Your task to perform on an android device: Open Youtube and go to the subscriptions tab Image 0: 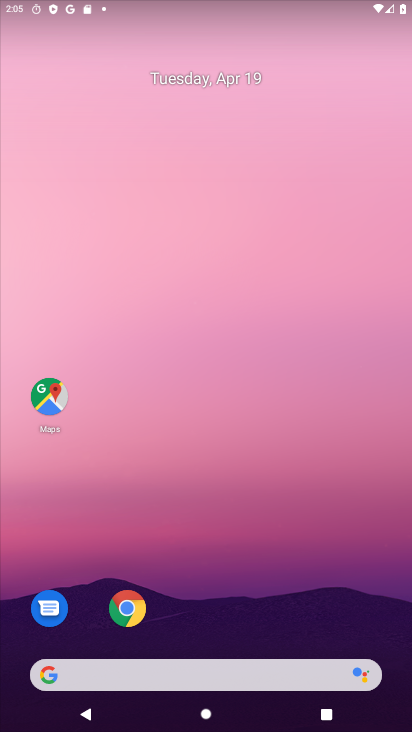
Step 0: drag from (304, 607) to (243, 166)
Your task to perform on an android device: Open Youtube and go to the subscriptions tab Image 1: 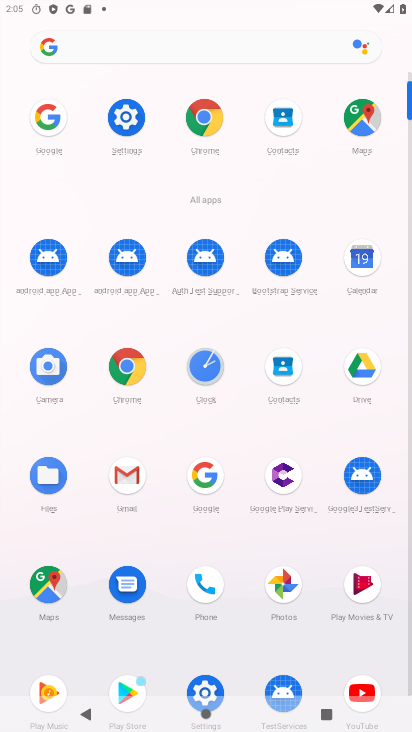
Step 1: click (361, 680)
Your task to perform on an android device: Open Youtube and go to the subscriptions tab Image 2: 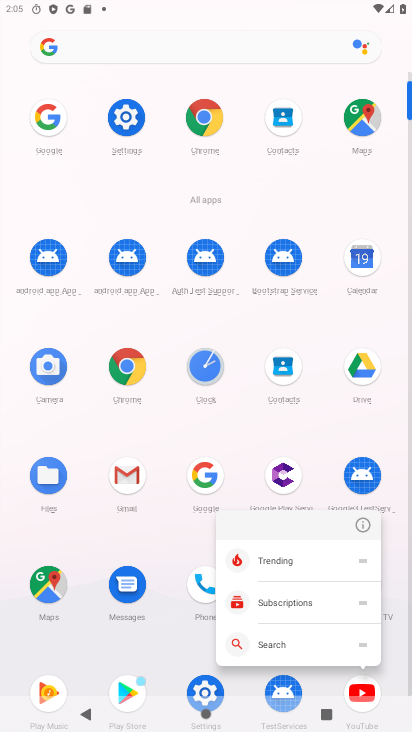
Step 2: click (354, 683)
Your task to perform on an android device: Open Youtube and go to the subscriptions tab Image 3: 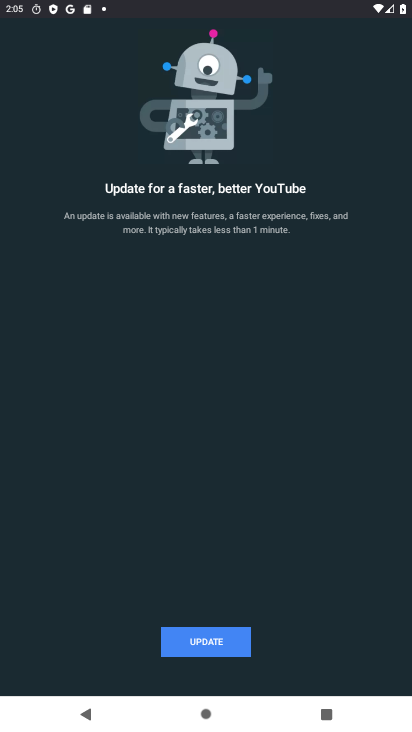
Step 3: click (200, 656)
Your task to perform on an android device: Open Youtube and go to the subscriptions tab Image 4: 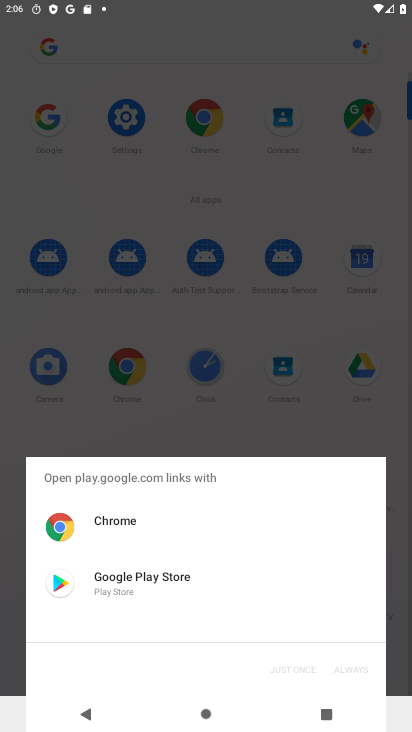
Step 4: click (155, 524)
Your task to perform on an android device: Open Youtube and go to the subscriptions tab Image 5: 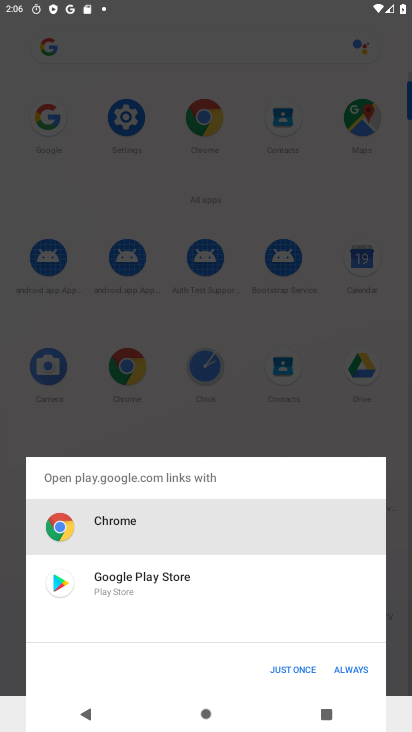
Step 5: click (292, 672)
Your task to perform on an android device: Open Youtube and go to the subscriptions tab Image 6: 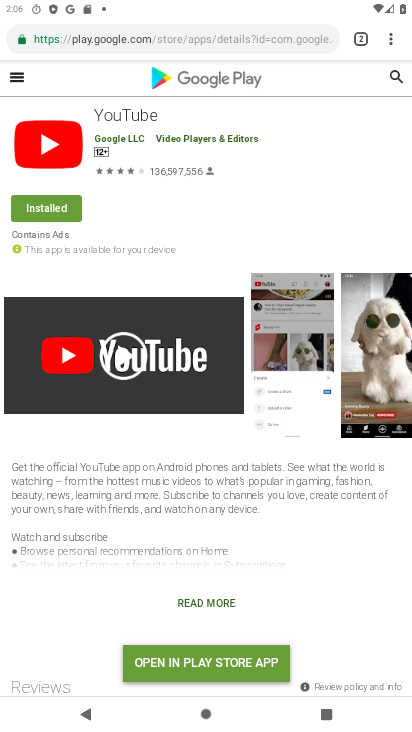
Step 6: click (221, 654)
Your task to perform on an android device: Open Youtube and go to the subscriptions tab Image 7: 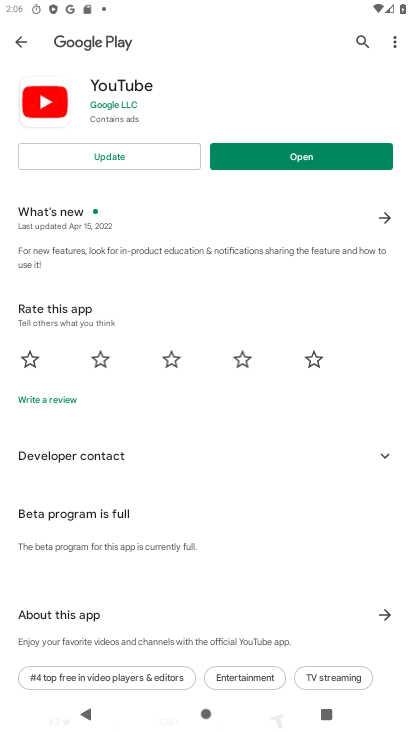
Step 7: click (110, 159)
Your task to perform on an android device: Open Youtube and go to the subscriptions tab Image 8: 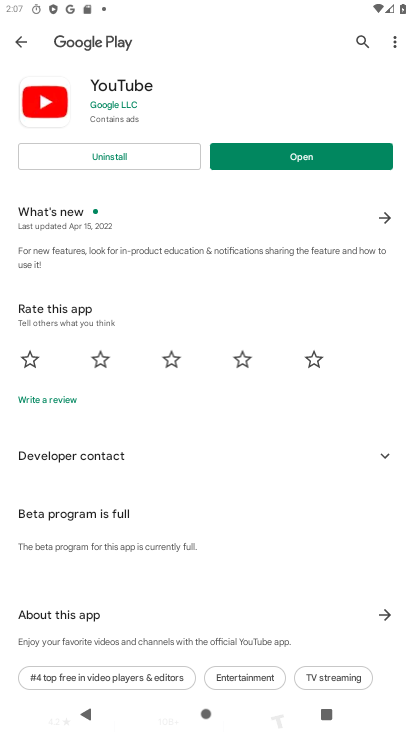
Step 8: click (384, 163)
Your task to perform on an android device: Open Youtube and go to the subscriptions tab Image 9: 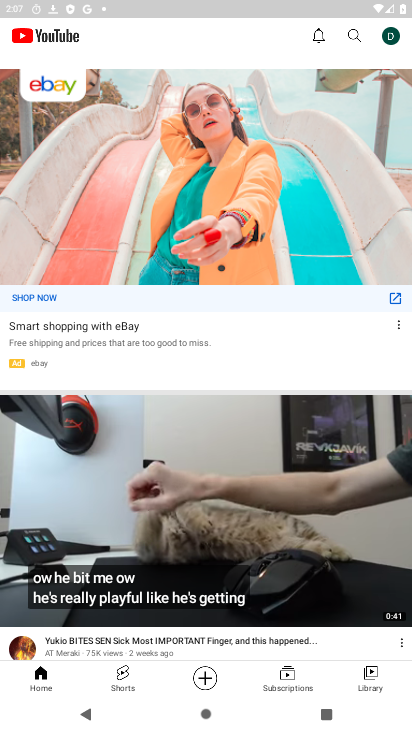
Step 9: click (294, 680)
Your task to perform on an android device: Open Youtube and go to the subscriptions tab Image 10: 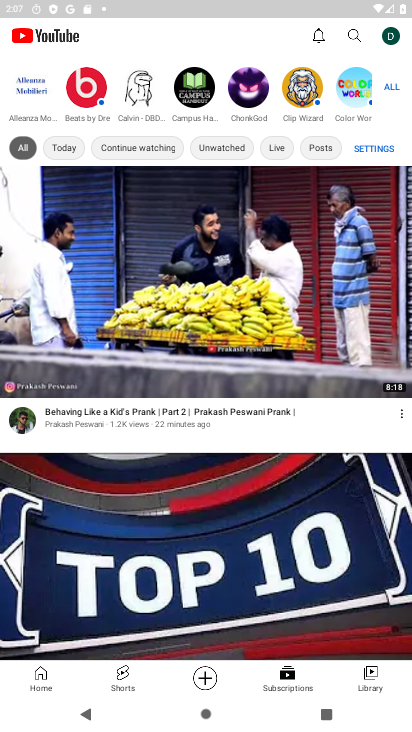
Step 10: task complete